Your task to perform on an android device: manage bookmarks in the chrome app Image 0: 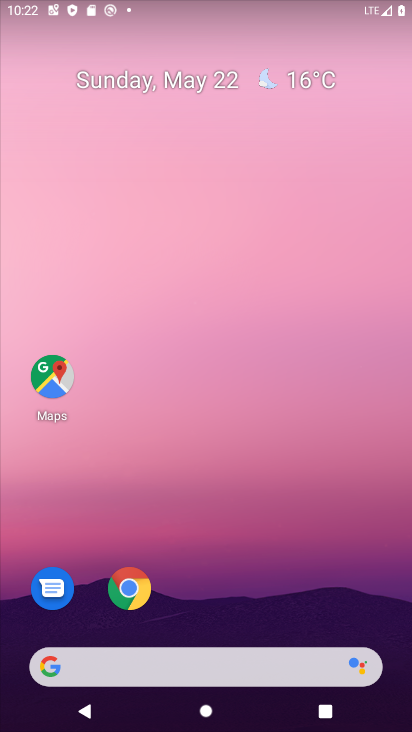
Step 0: click (130, 601)
Your task to perform on an android device: manage bookmarks in the chrome app Image 1: 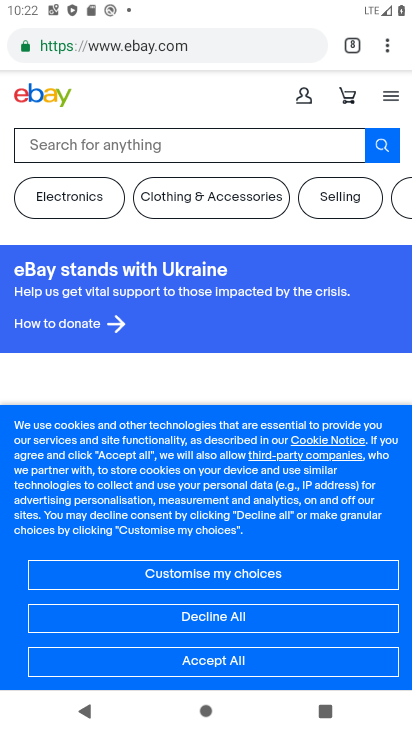
Step 1: click (385, 45)
Your task to perform on an android device: manage bookmarks in the chrome app Image 2: 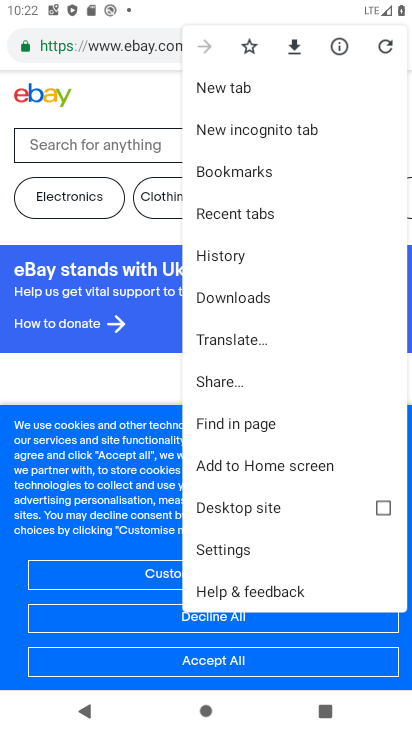
Step 2: click (249, 171)
Your task to perform on an android device: manage bookmarks in the chrome app Image 3: 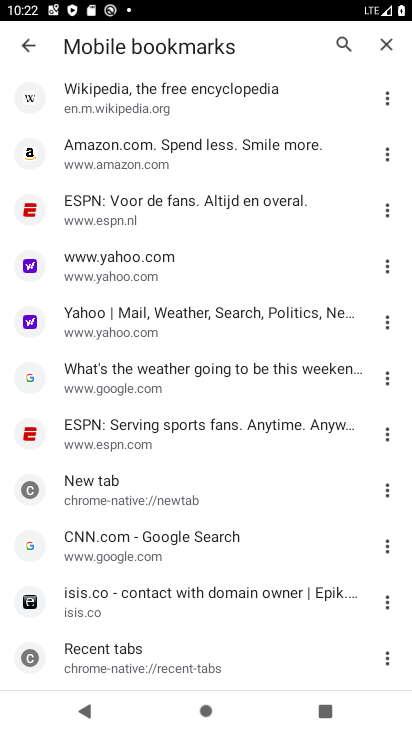
Step 3: click (149, 211)
Your task to perform on an android device: manage bookmarks in the chrome app Image 4: 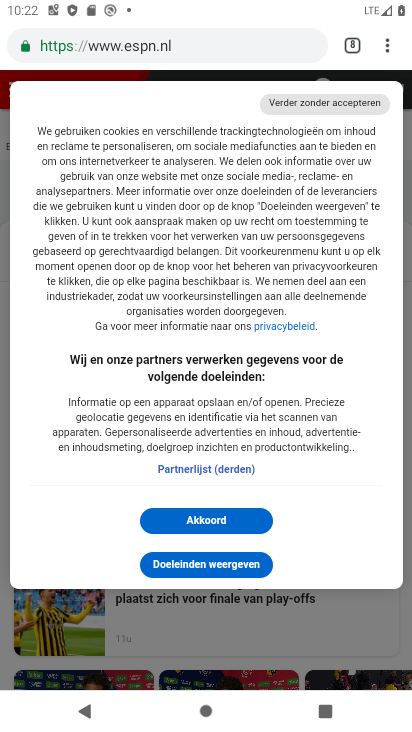
Step 4: task complete